Your task to perform on an android device: turn off notifications settings in the gmail app Image 0: 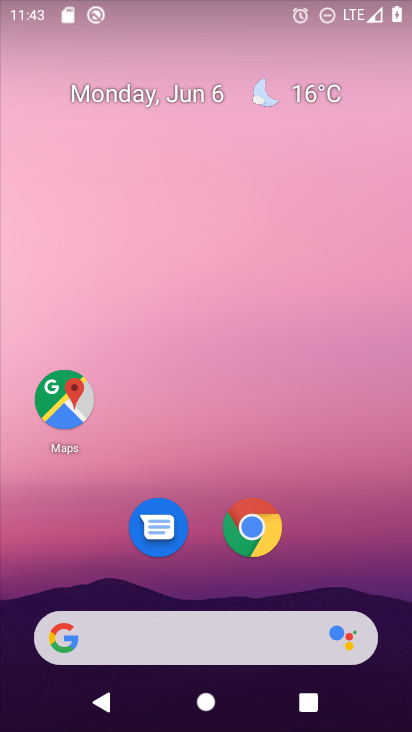
Step 0: drag from (376, 555) to (346, 169)
Your task to perform on an android device: turn off notifications settings in the gmail app Image 1: 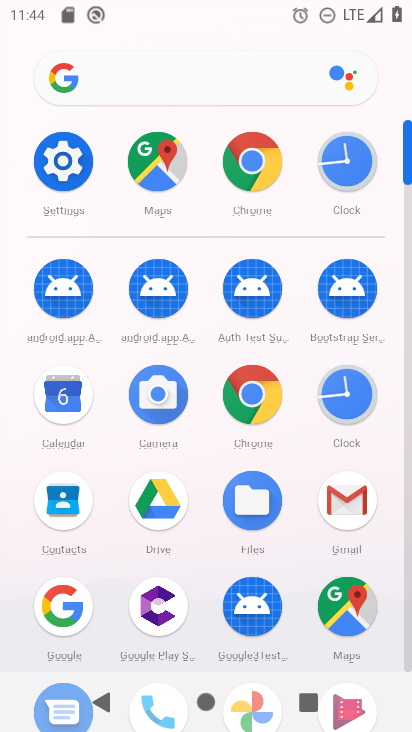
Step 1: click (349, 499)
Your task to perform on an android device: turn off notifications settings in the gmail app Image 2: 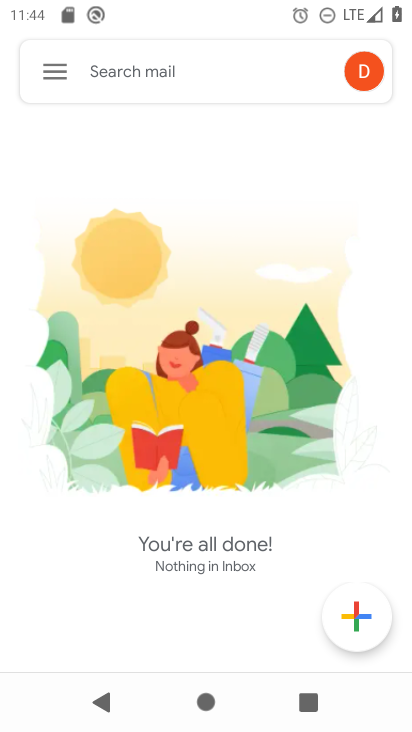
Step 2: click (43, 75)
Your task to perform on an android device: turn off notifications settings in the gmail app Image 3: 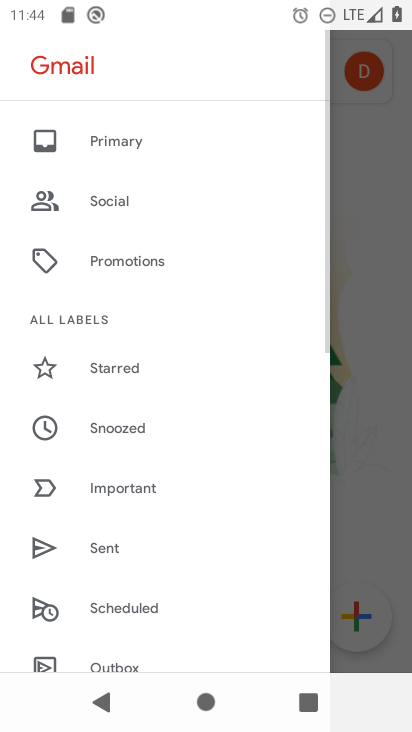
Step 3: drag from (255, 453) to (253, 305)
Your task to perform on an android device: turn off notifications settings in the gmail app Image 4: 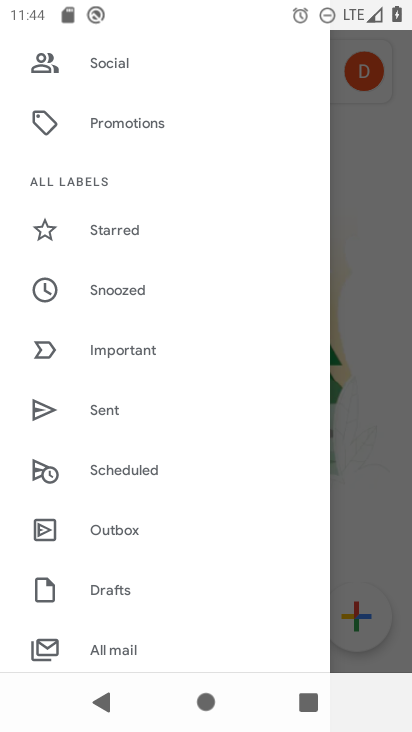
Step 4: drag from (251, 498) to (248, 338)
Your task to perform on an android device: turn off notifications settings in the gmail app Image 5: 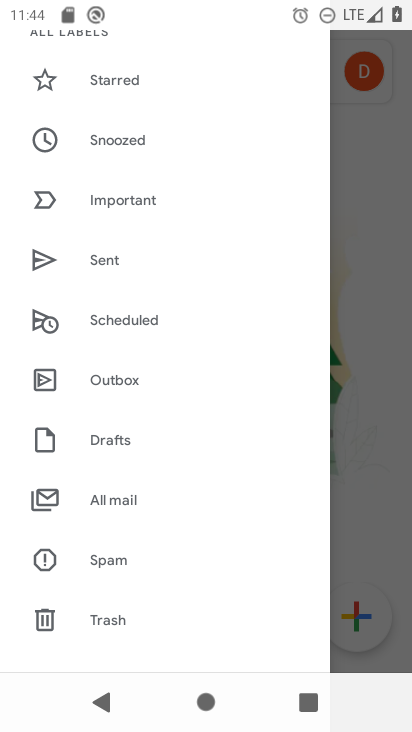
Step 5: drag from (245, 555) to (243, 351)
Your task to perform on an android device: turn off notifications settings in the gmail app Image 6: 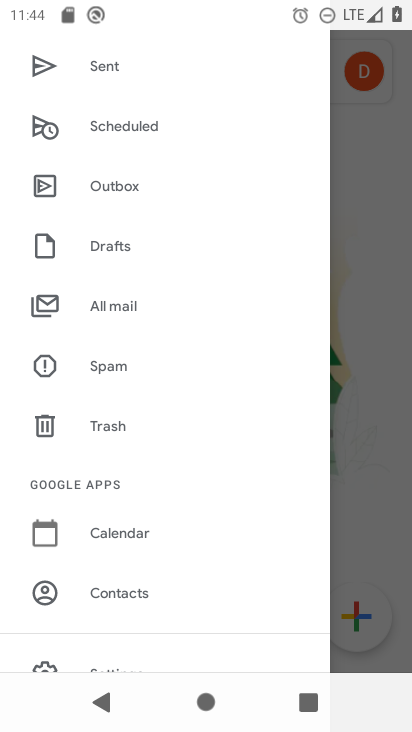
Step 6: drag from (248, 580) to (239, 349)
Your task to perform on an android device: turn off notifications settings in the gmail app Image 7: 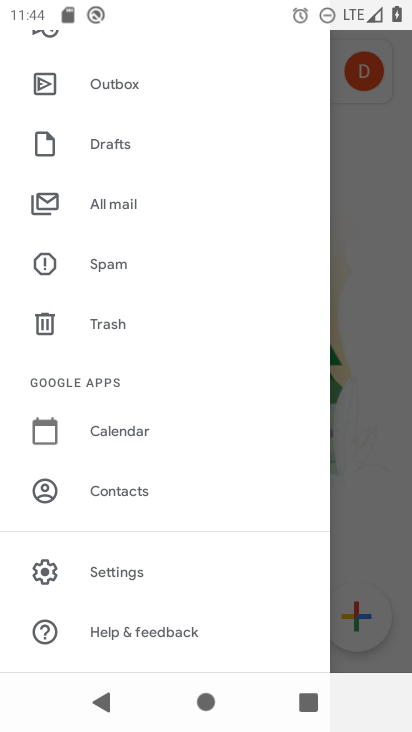
Step 7: click (122, 578)
Your task to perform on an android device: turn off notifications settings in the gmail app Image 8: 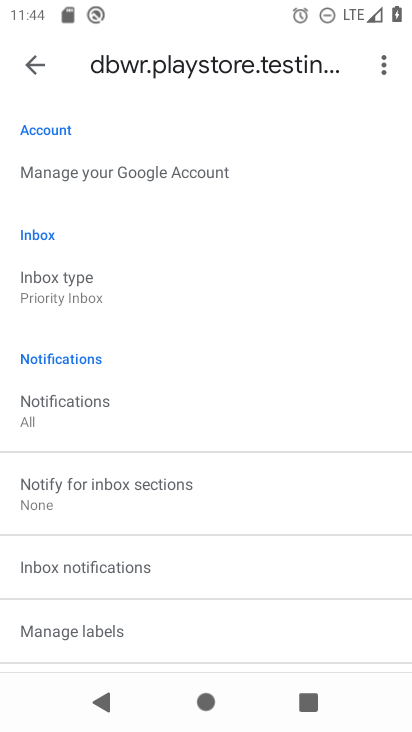
Step 8: drag from (304, 575) to (310, 354)
Your task to perform on an android device: turn off notifications settings in the gmail app Image 9: 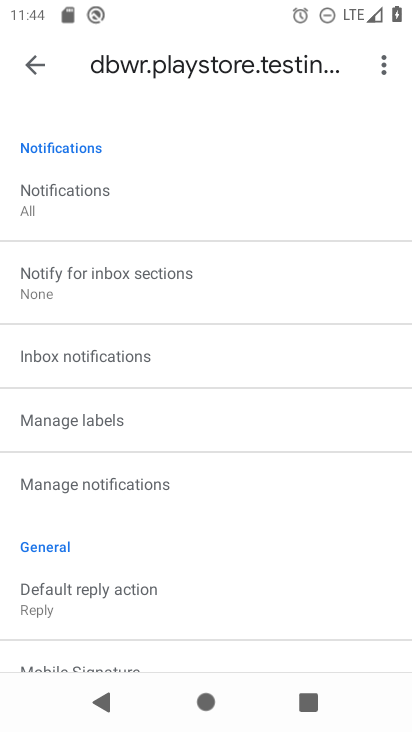
Step 9: drag from (301, 443) to (292, 327)
Your task to perform on an android device: turn off notifications settings in the gmail app Image 10: 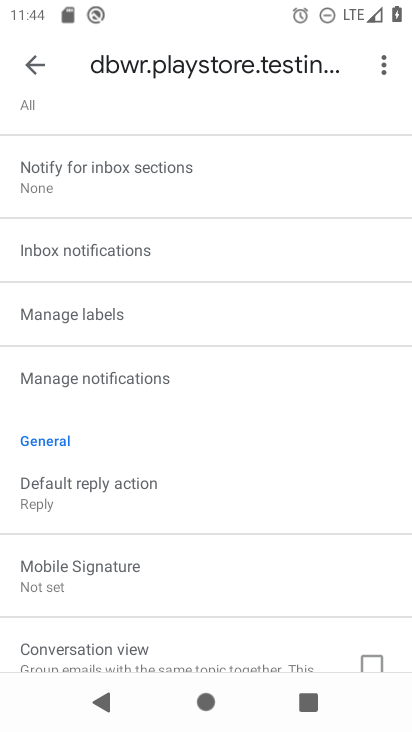
Step 10: drag from (287, 462) to (287, 377)
Your task to perform on an android device: turn off notifications settings in the gmail app Image 11: 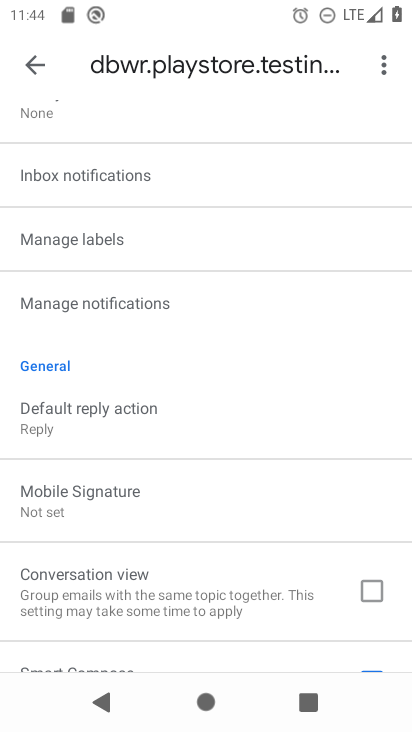
Step 11: click (151, 299)
Your task to perform on an android device: turn off notifications settings in the gmail app Image 12: 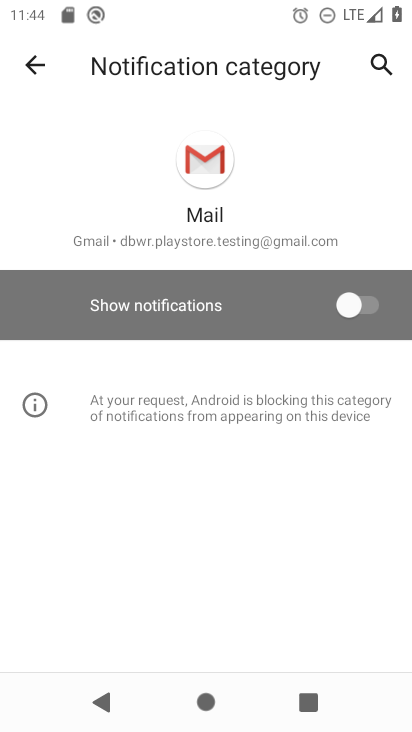
Step 12: task complete